Your task to perform on an android device: Open network settings Image 0: 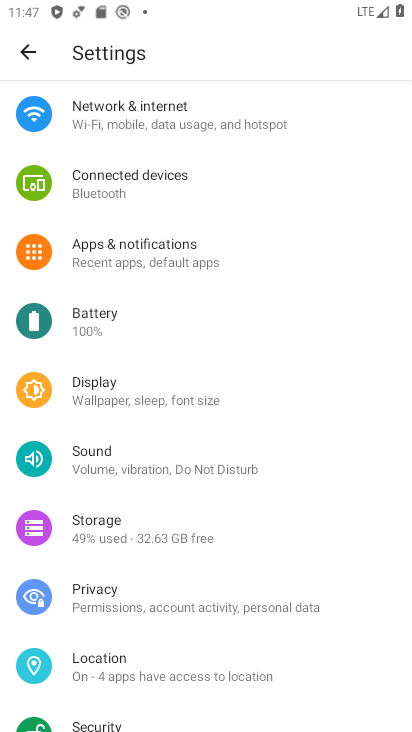
Step 0: press home button
Your task to perform on an android device: Open network settings Image 1: 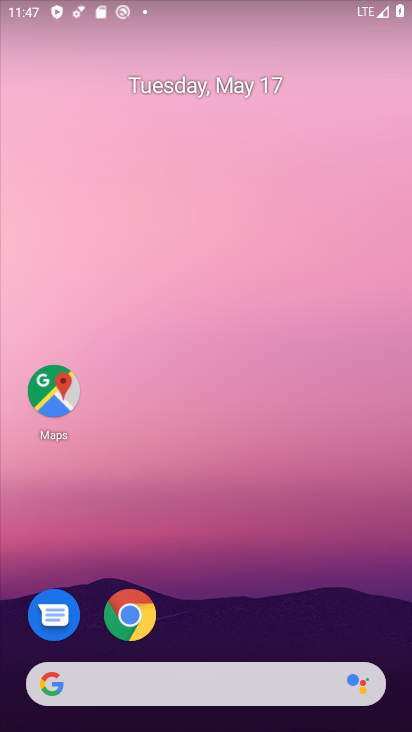
Step 1: drag from (256, 692) to (244, 410)
Your task to perform on an android device: Open network settings Image 2: 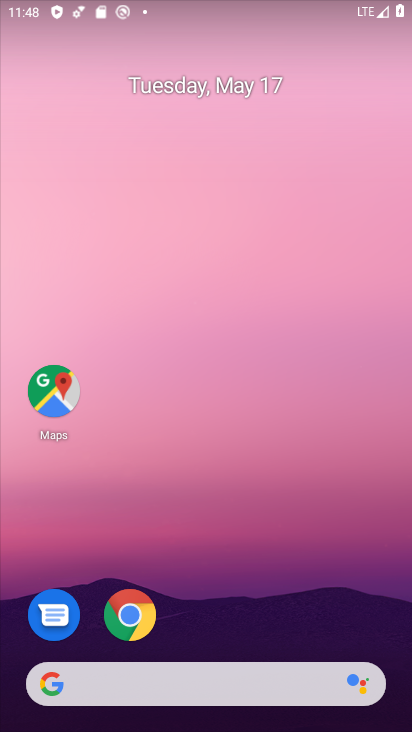
Step 2: drag from (247, 699) to (165, 191)
Your task to perform on an android device: Open network settings Image 3: 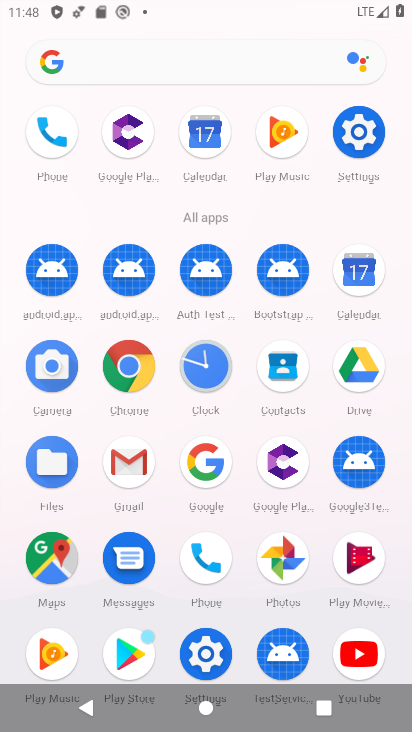
Step 3: click (340, 140)
Your task to perform on an android device: Open network settings Image 4: 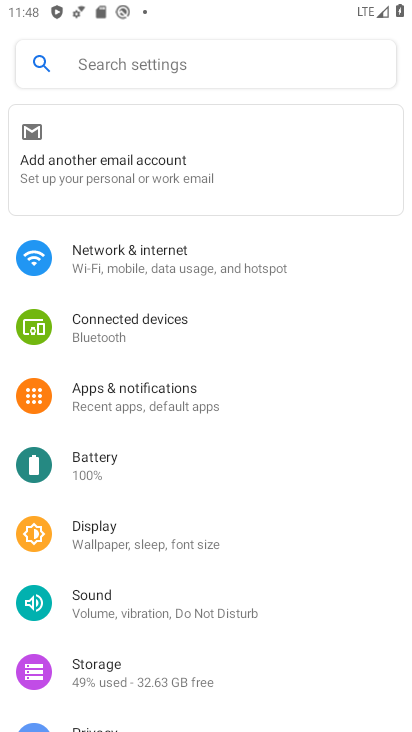
Step 4: click (134, 262)
Your task to perform on an android device: Open network settings Image 5: 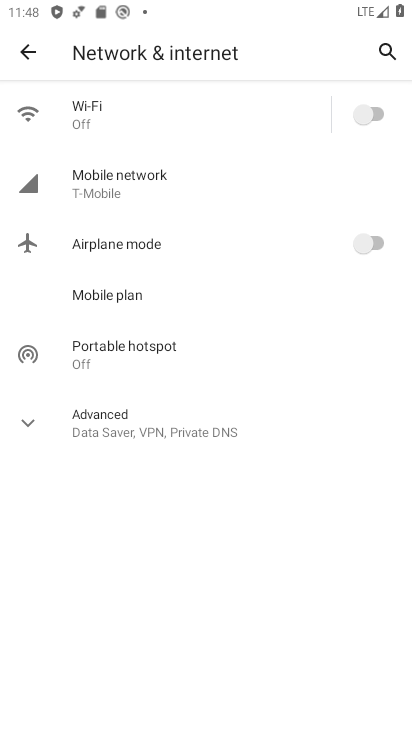
Step 5: task complete